Your task to perform on an android device: Search for usb-c on newegg, select the first entry, and add it to the cart. Image 0: 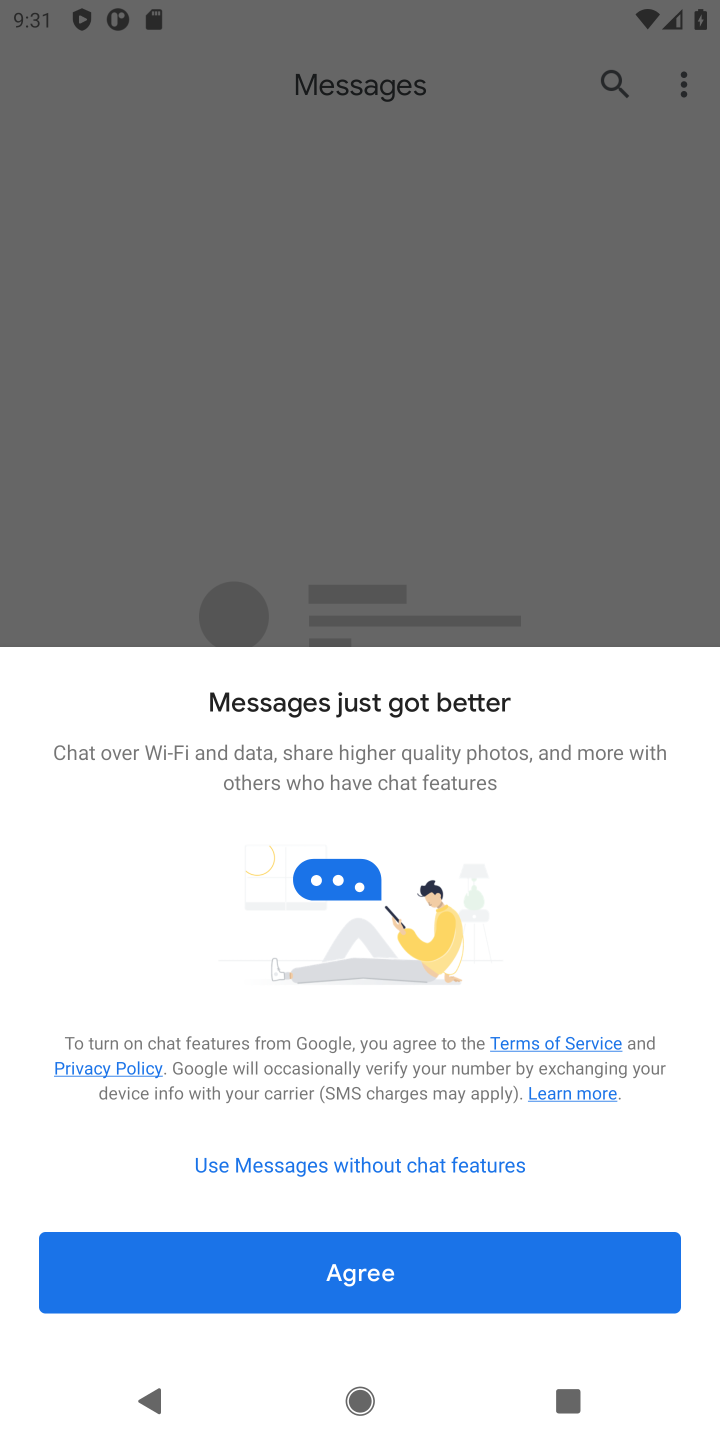
Step 0: press home button
Your task to perform on an android device: Search for usb-c on newegg, select the first entry, and add it to the cart. Image 1: 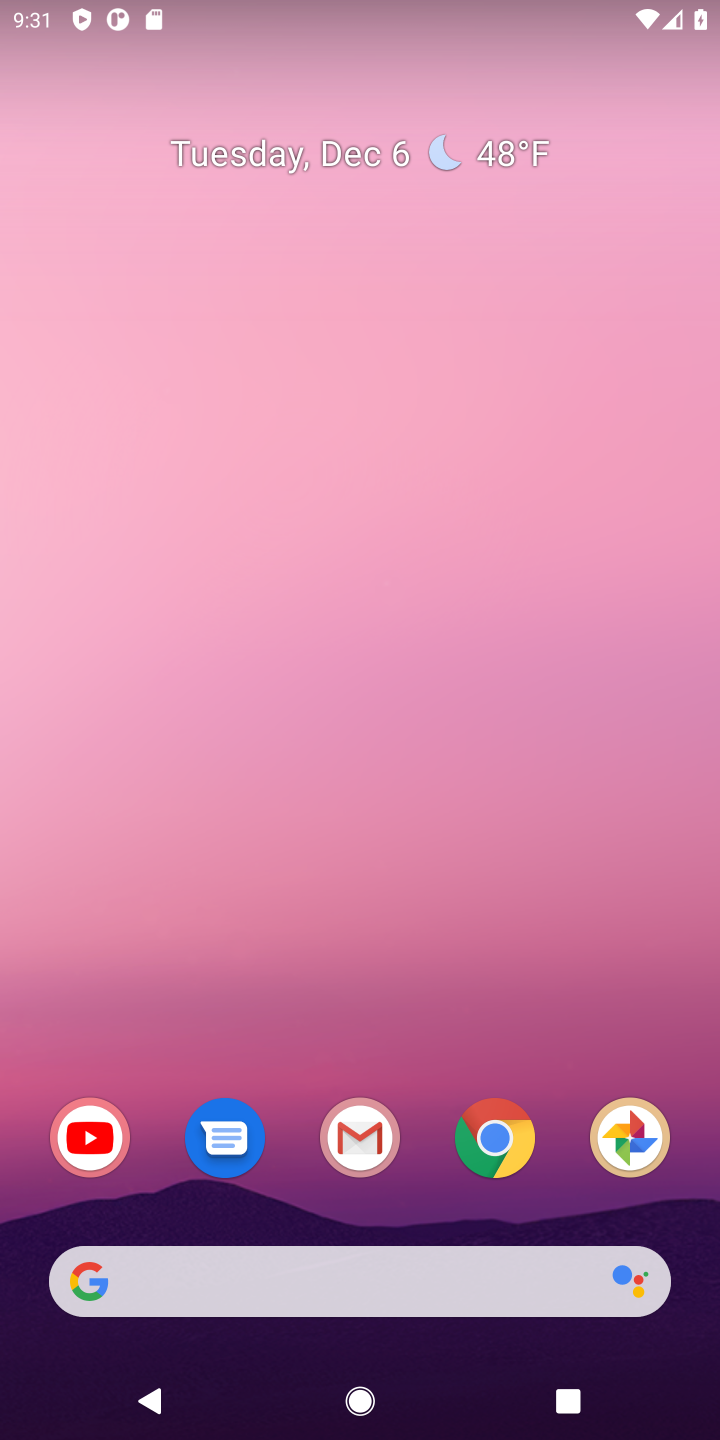
Step 1: click (500, 1155)
Your task to perform on an android device: Search for usb-c on newegg, select the first entry, and add it to the cart. Image 2: 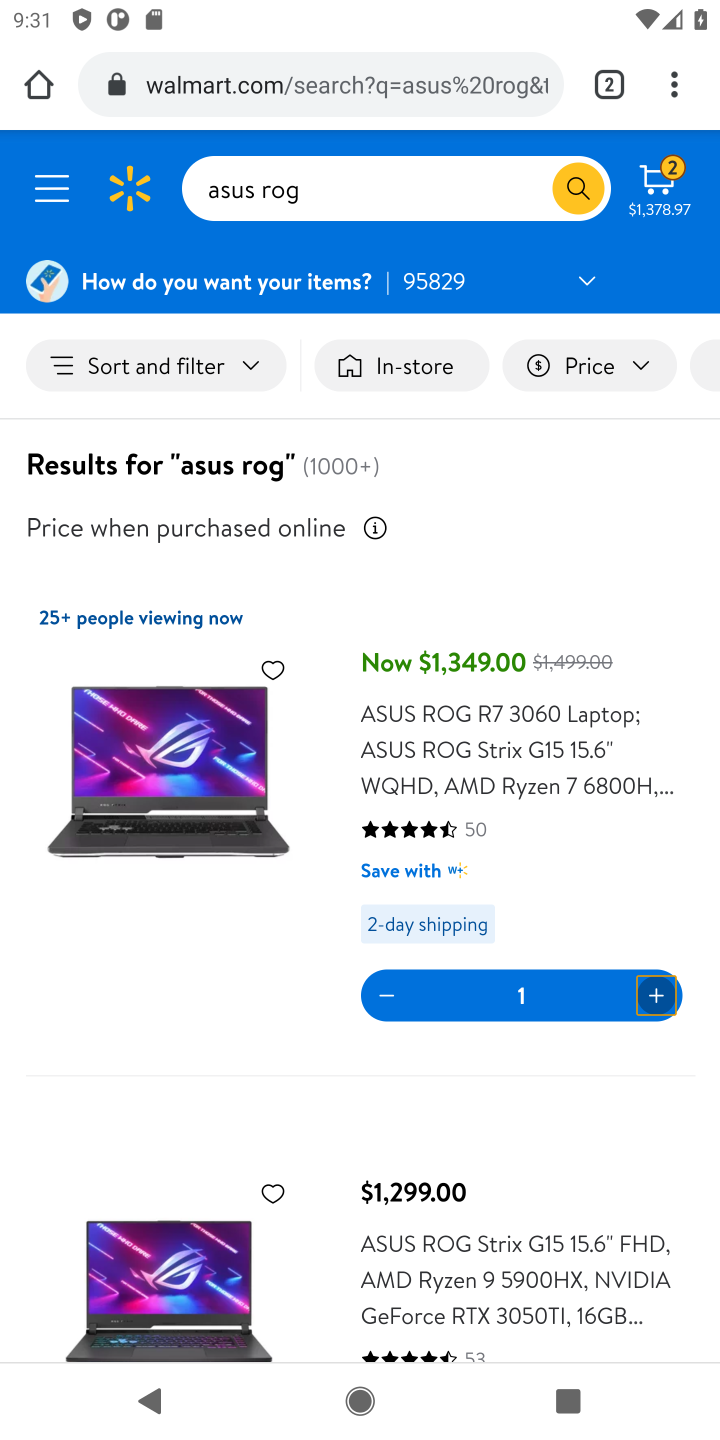
Step 2: click (319, 88)
Your task to perform on an android device: Search for usb-c on newegg, select the first entry, and add it to the cart. Image 3: 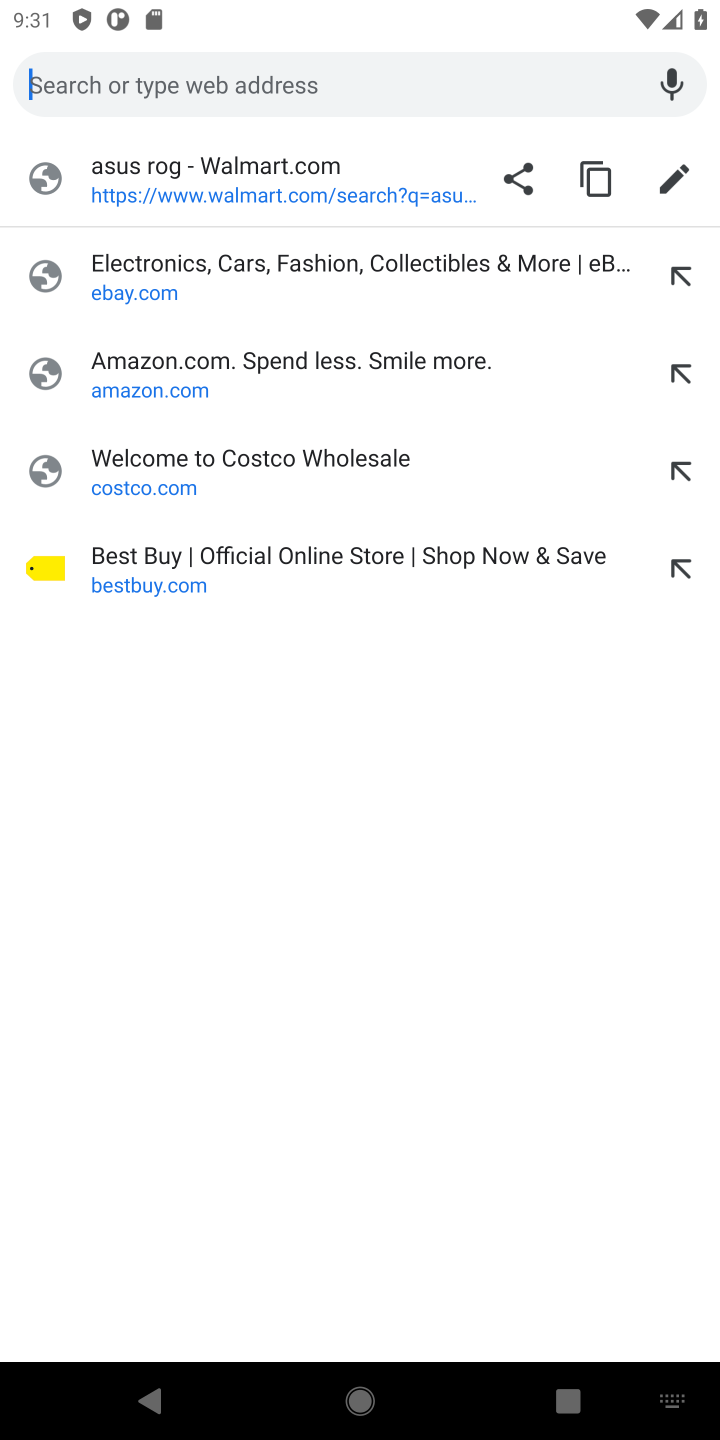
Step 3: type "newegg.com"
Your task to perform on an android device: Search for usb-c on newegg, select the first entry, and add it to the cart. Image 4: 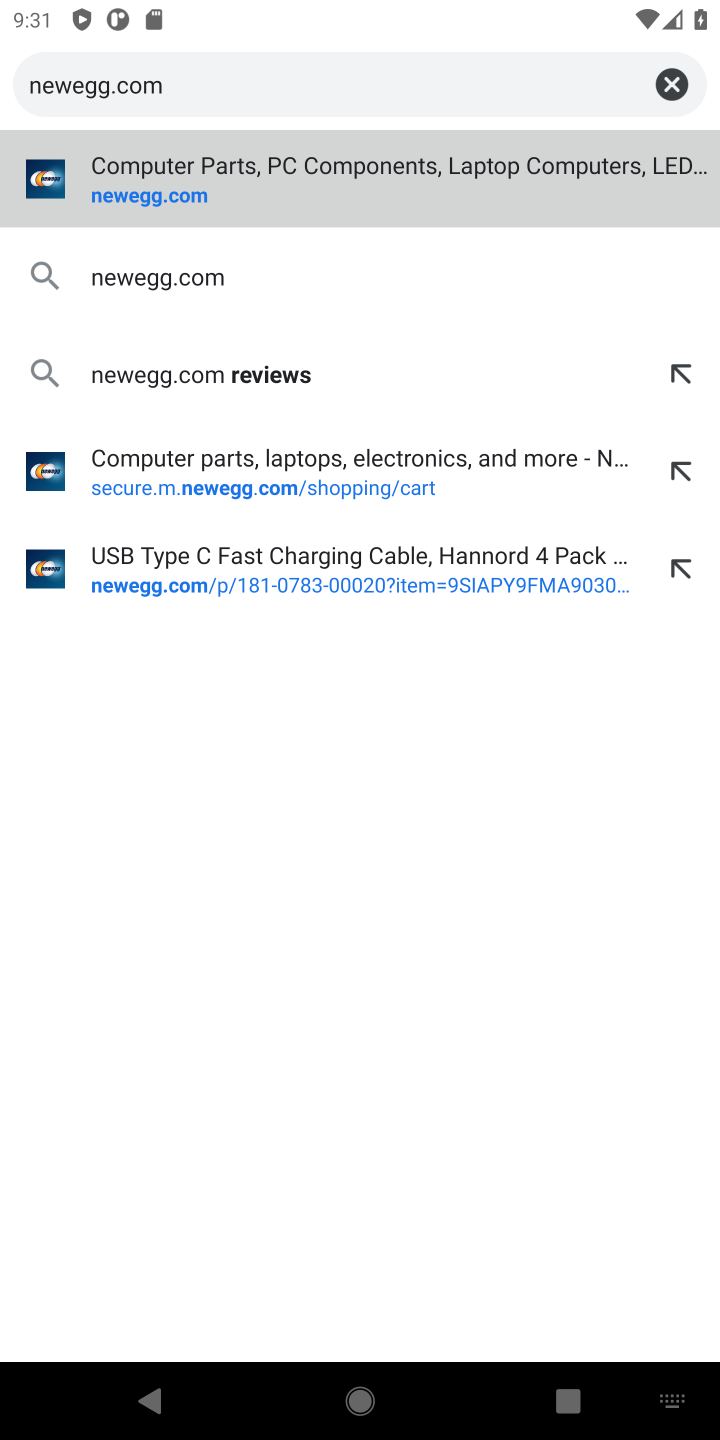
Step 4: click (140, 196)
Your task to perform on an android device: Search for usb-c on newegg, select the first entry, and add it to the cart. Image 5: 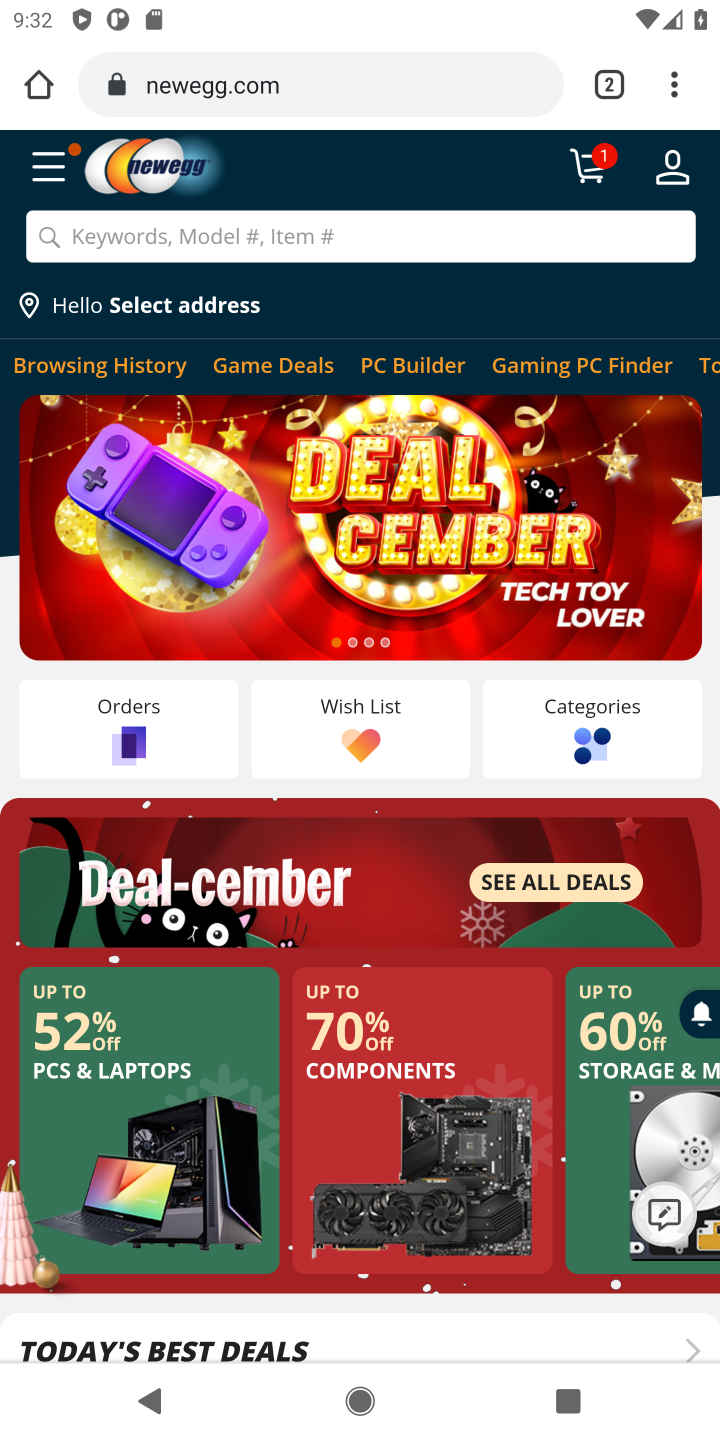
Step 5: click (120, 221)
Your task to perform on an android device: Search for usb-c on newegg, select the first entry, and add it to the cart. Image 6: 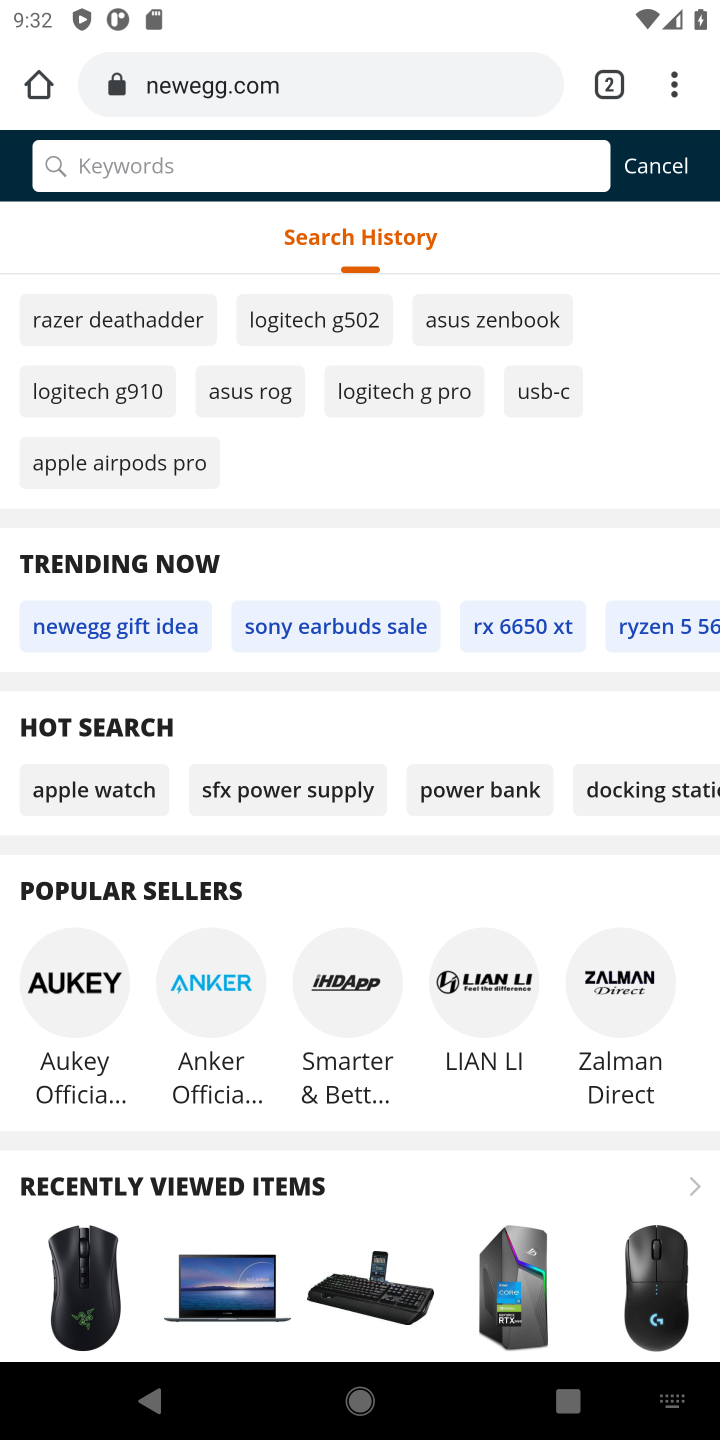
Step 6: type "usb-c"
Your task to perform on an android device: Search for usb-c on newegg, select the first entry, and add it to the cart. Image 7: 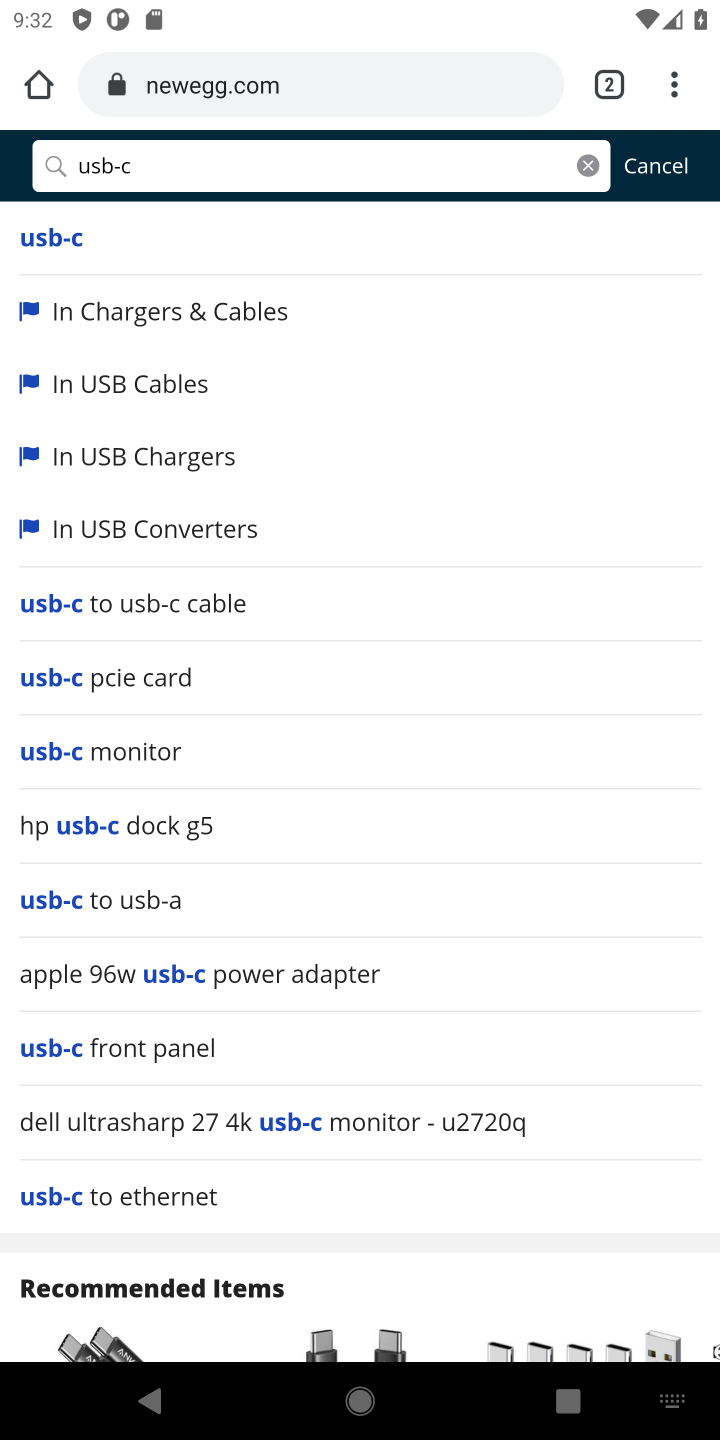
Step 7: click (49, 241)
Your task to perform on an android device: Search for usb-c on newegg, select the first entry, and add it to the cart. Image 8: 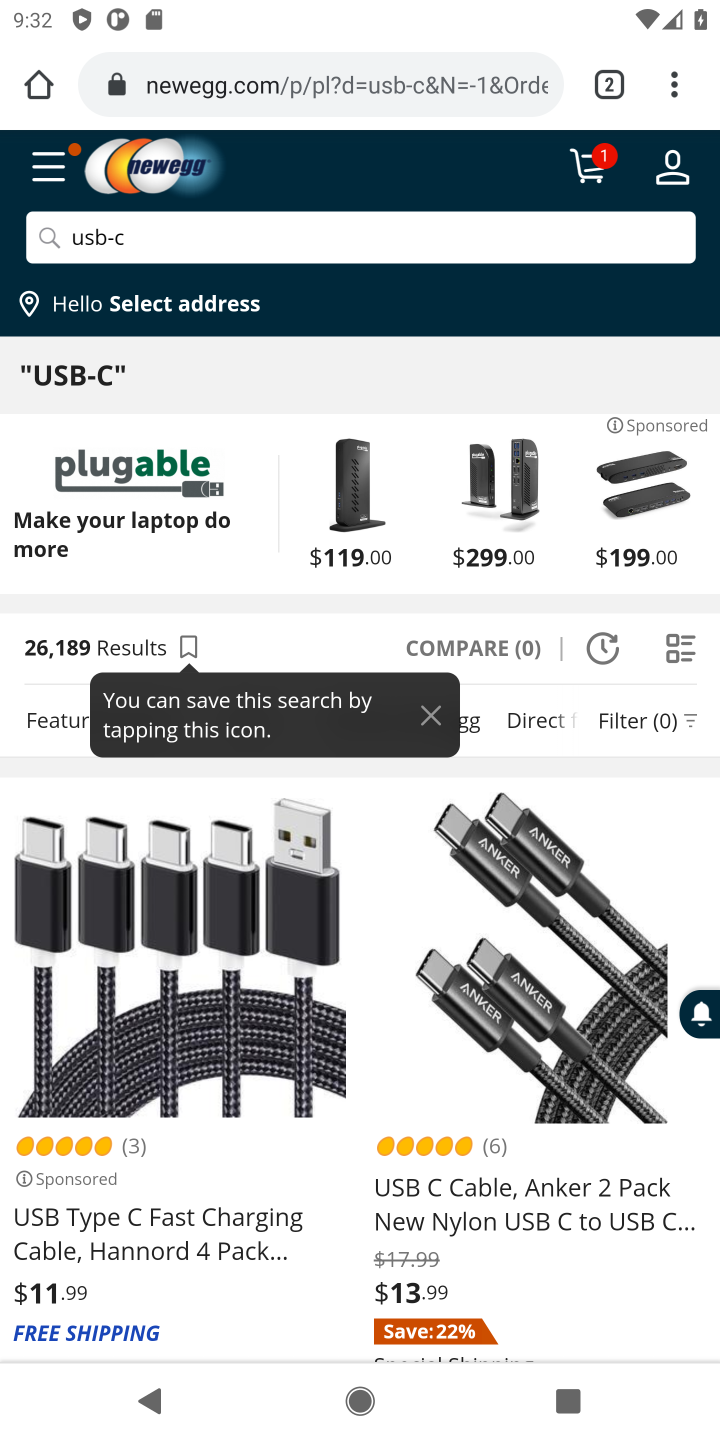
Step 8: click (145, 1197)
Your task to perform on an android device: Search for usb-c on newegg, select the first entry, and add it to the cart. Image 9: 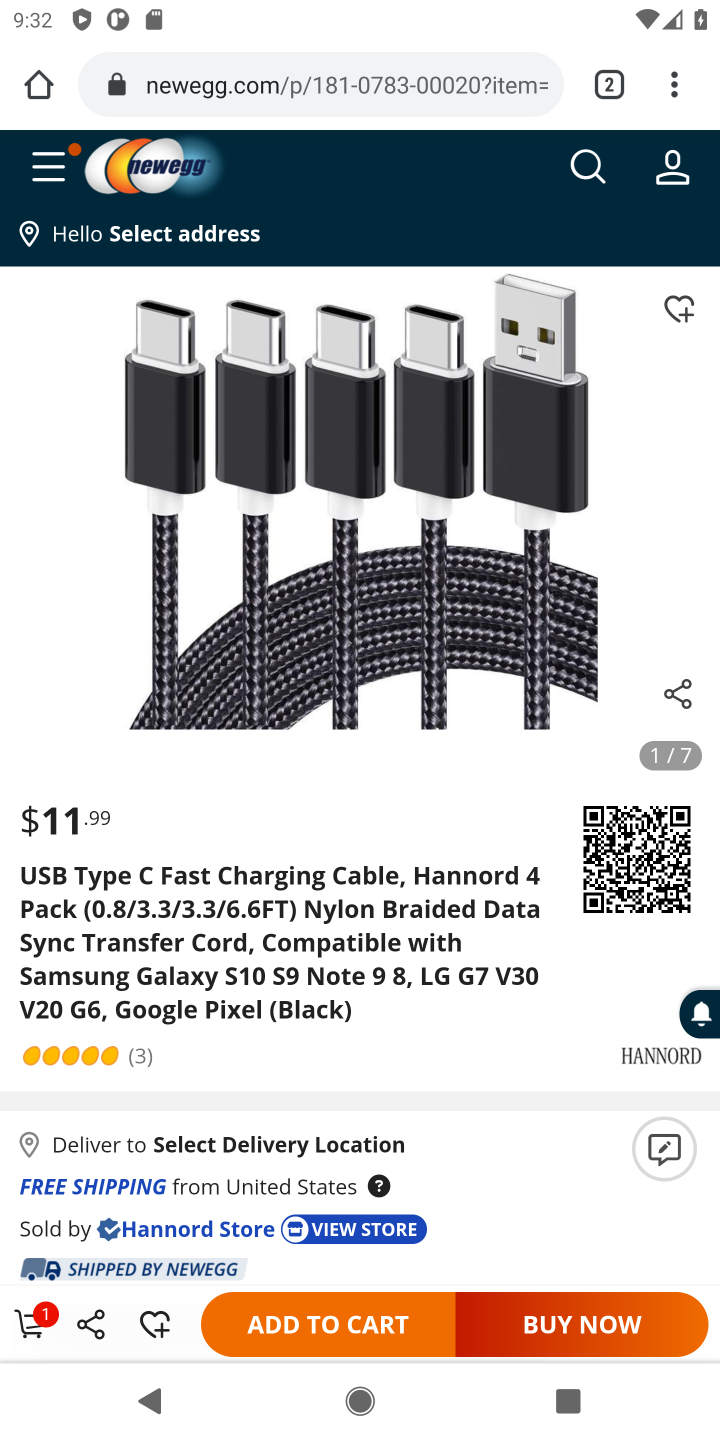
Step 9: click (303, 1334)
Your task to perform on an android device: Search for usb-c on newegg, select the first entry, and add it to the cart. Image 10: 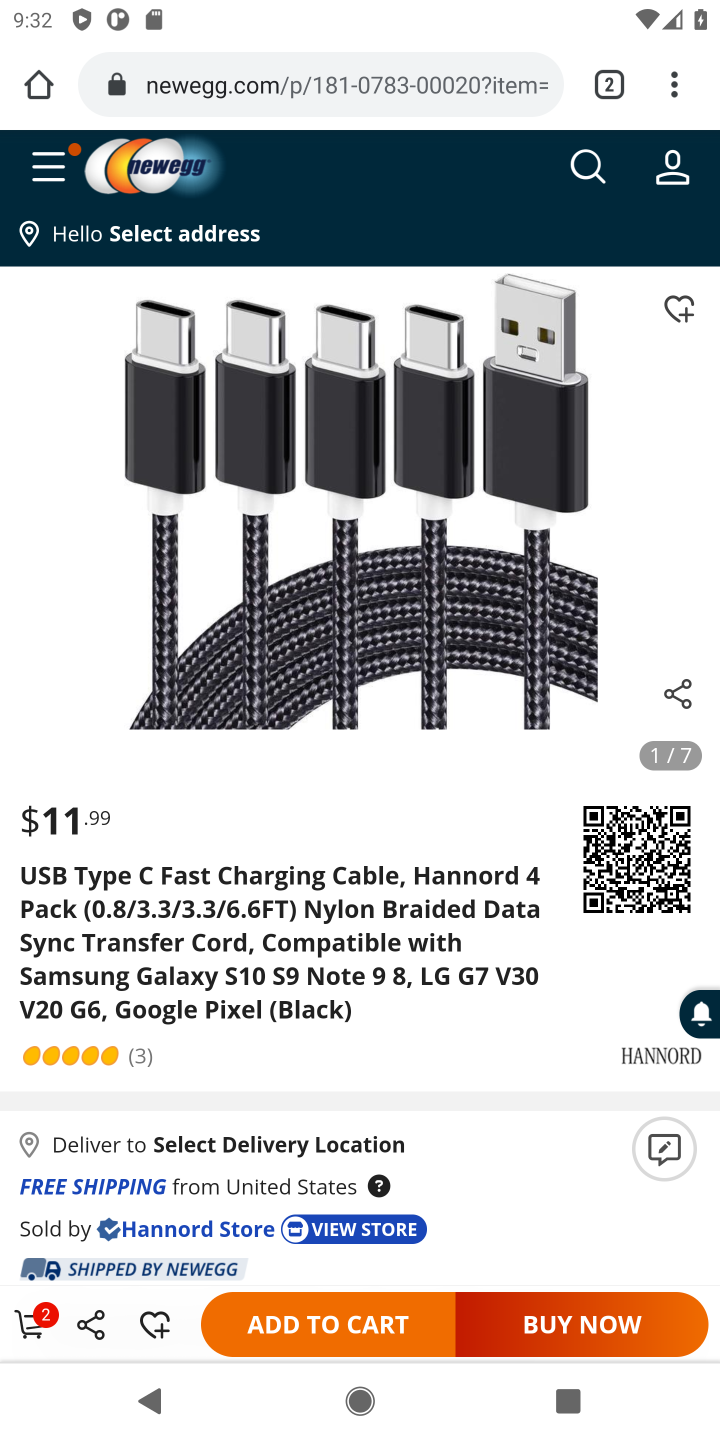
Step 10: task complete